Your task to perform on an android device: Find coffee shops on Maps Image 0: 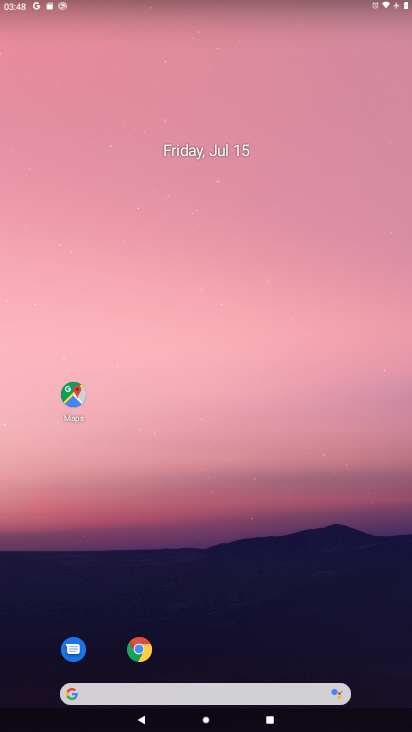
Step 0: click (75, 395)
Your task to perform on an android device: Find coffee shops on Maps Image 1: 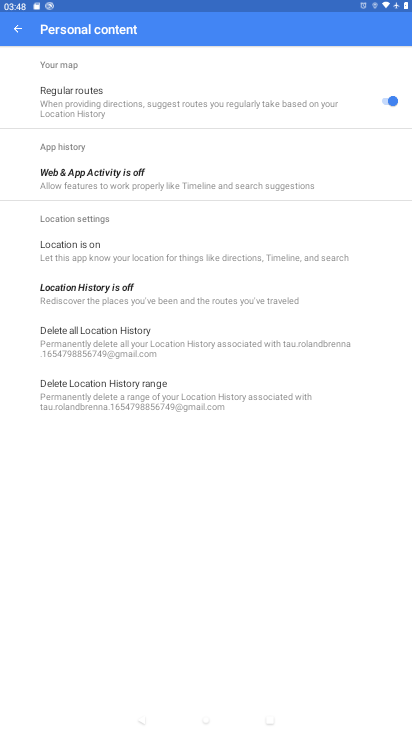
Step 1: press back button
Your task to perform on an android device: Find coffee shops on Maps Image 2: 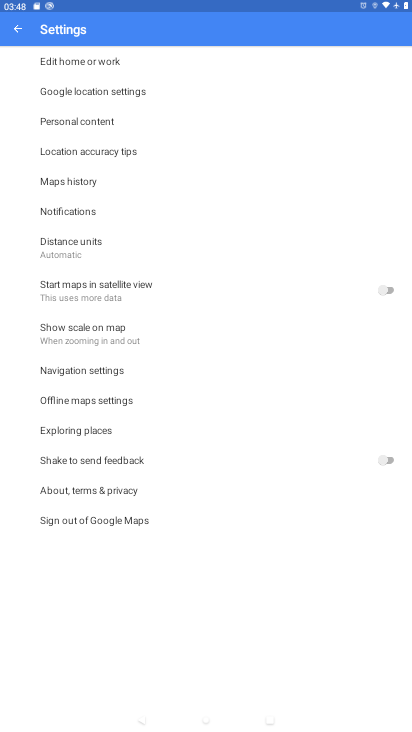
Step 2: press back button
Your task to perform on an android device: Find coffee shops on Maps Image 3: 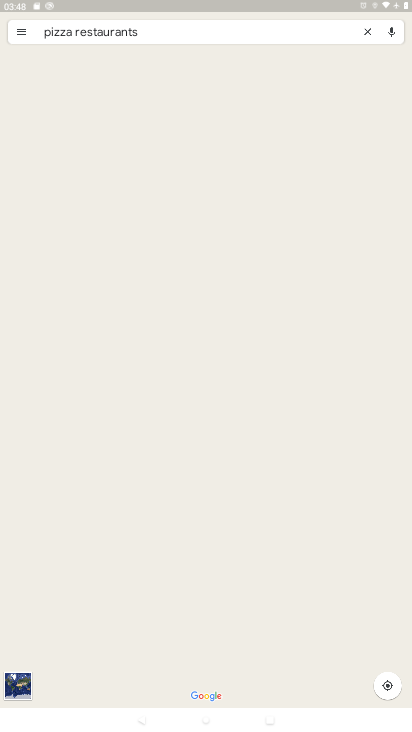
Step 3: click (362, 30)
Your task to perform on an android device: Find coffee shops on Maps Image 4: 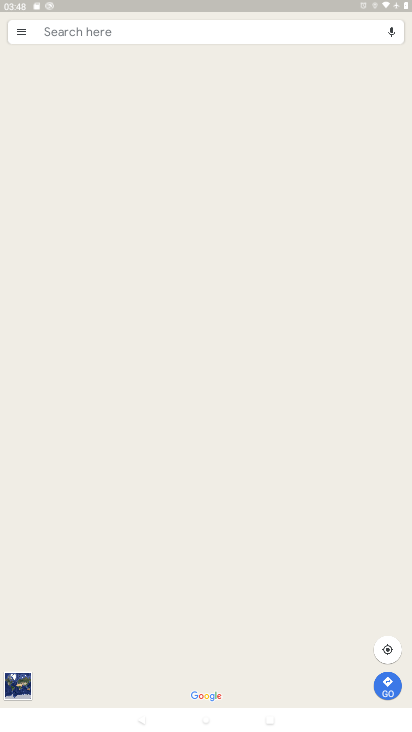
Step 4: click (97, 31)
Your task to perform on an android device: Find coffee shops on Maps Image 5: 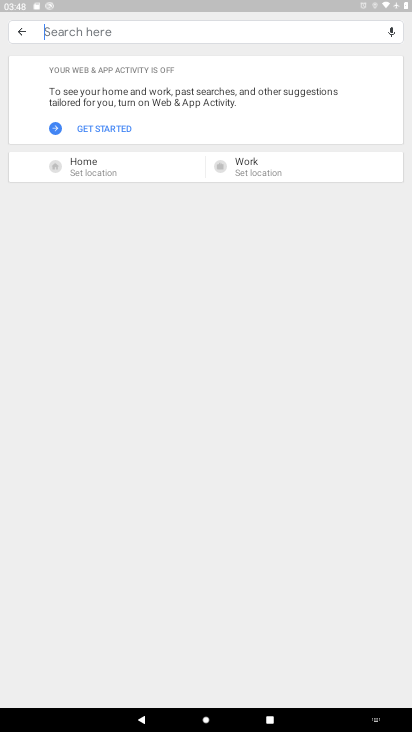
Step 5: type "coffee shops"
Your task to perform on an android device: Find coffee shops on Maps Image 6: 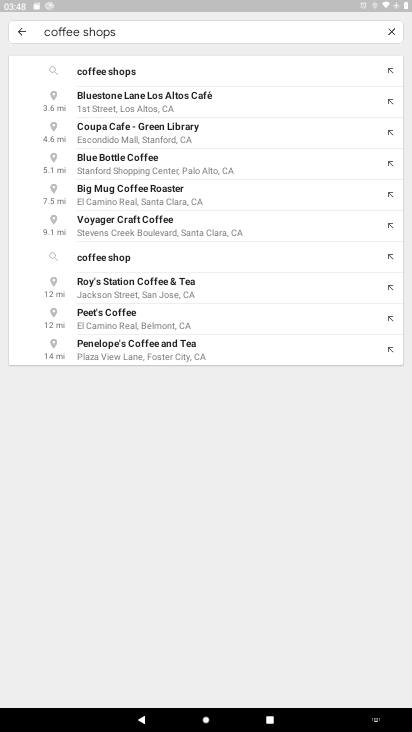
Step 6: click (107, 70)
Your task to perform on an android device: Find coffee shops on Maps Image 7: 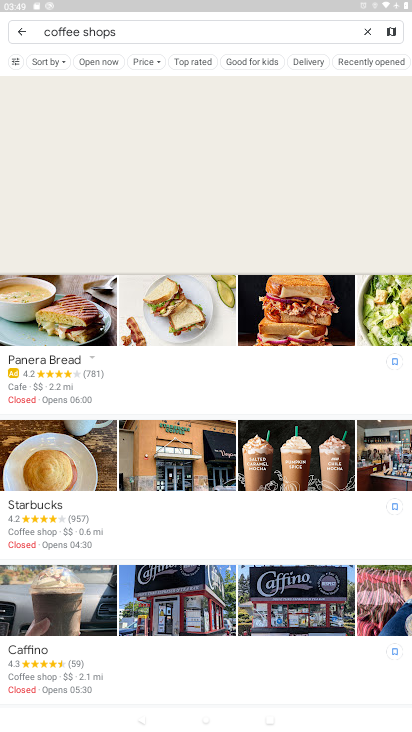
Step 7: task complete